Your task to perform on an android device: Open the map Image 0: 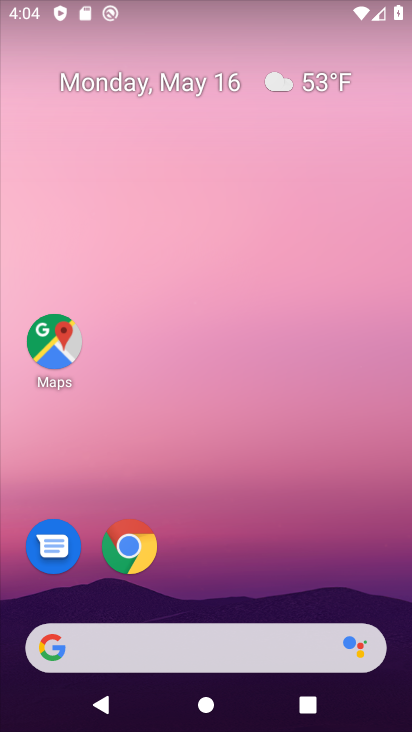
Step 0: click (54, 347)
Your task to perform on an android device: Open the map Image 1: 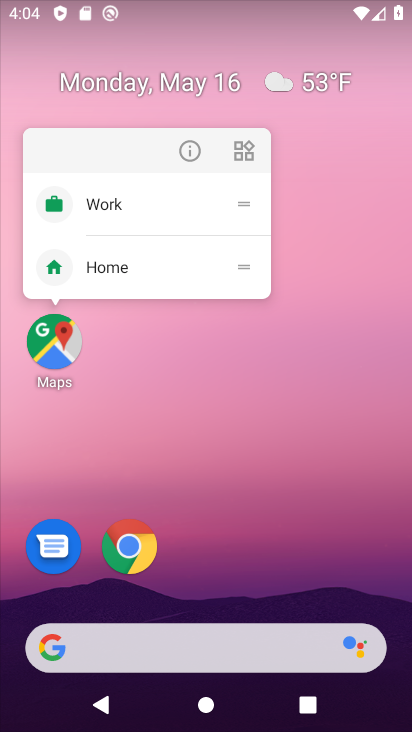
Step 1: click (55, 346)
Your task to perform on an android device: Open the map Image 2: 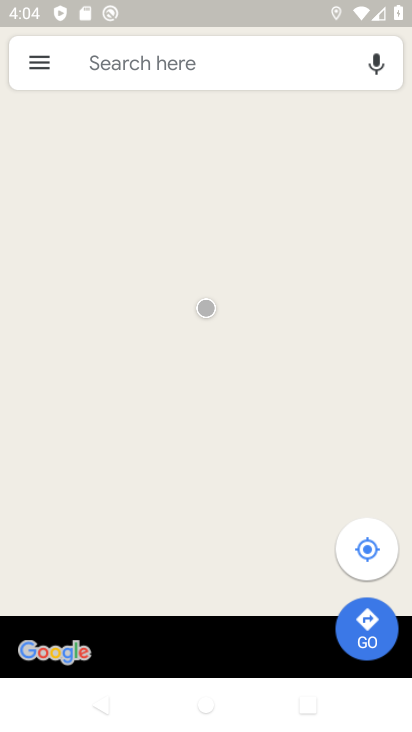
Step 2: task complete